Your task to perform on an android device: toggle notifications settings in the gmail app Image 0: 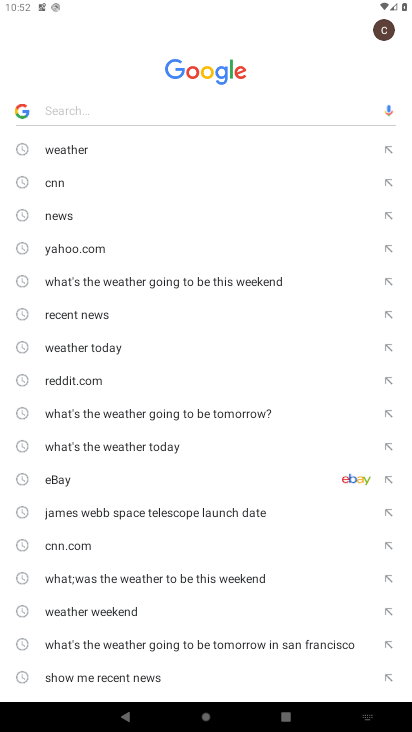
Step 0: press home button
Your task to perform on an android device: toggle notifications settings in the gmail app Image 1: 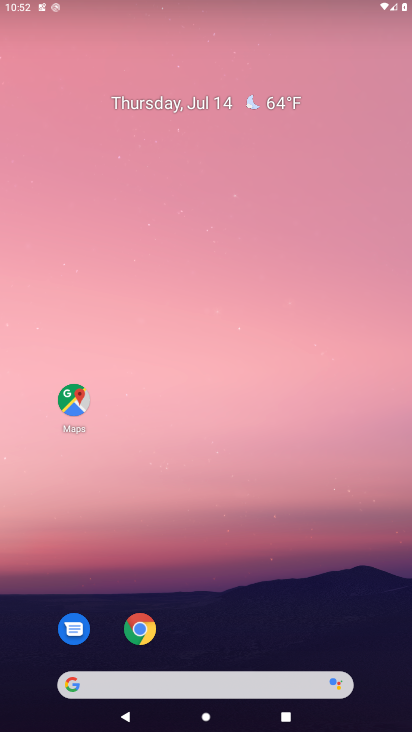
Step 1: drag from (161, 557) to (161, 325)
Your task to perform on an android device: toggle notifications settings in the gmail app Image 2: 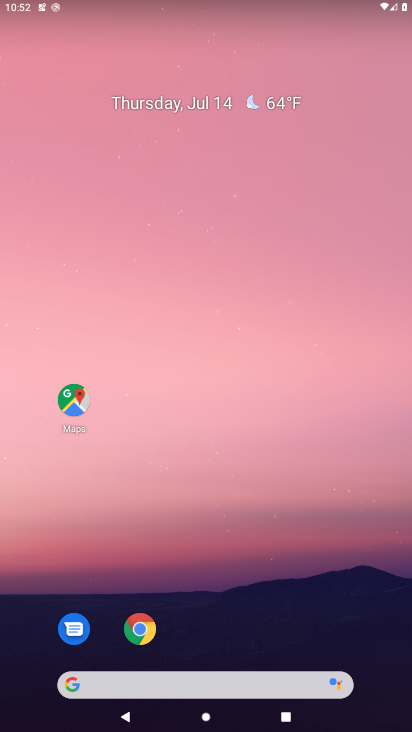
Step 2: drag from (176, 538) to (222, 263)
Your task to perform on an android device: toggle notifications settings in the gmail app Image 3: 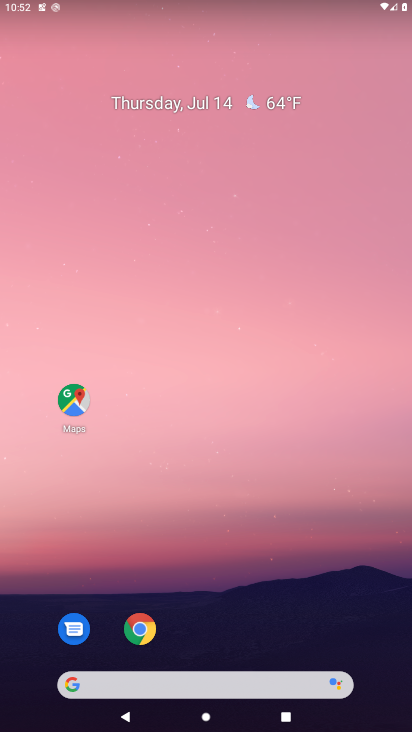
Step 3: drag from (188, 659) to (210, 42)
Your task to perform on an android device: toggle notifications settings in the gmail app Image 4: 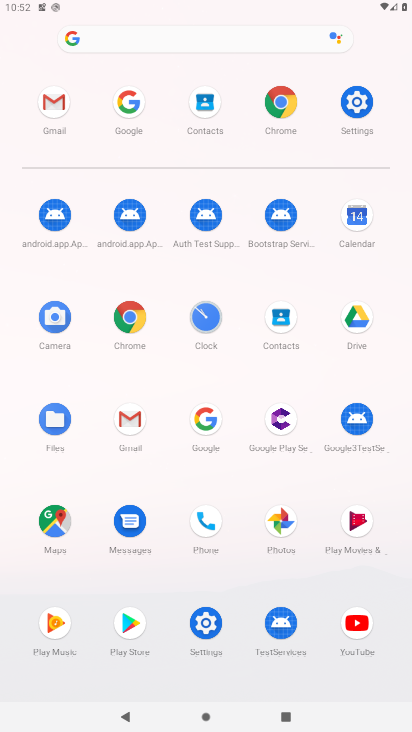
Step 4: click (130, 411)
Your task to perform on an android device: toggle notifications settings in the gmail app Image 5: 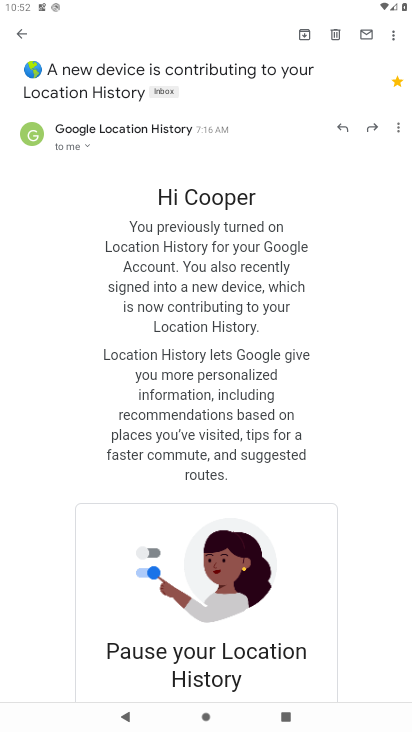
Step 5: click (21, 26)
Your task to perform on an android device: toggle notifications settings in the gmail app Image 6: 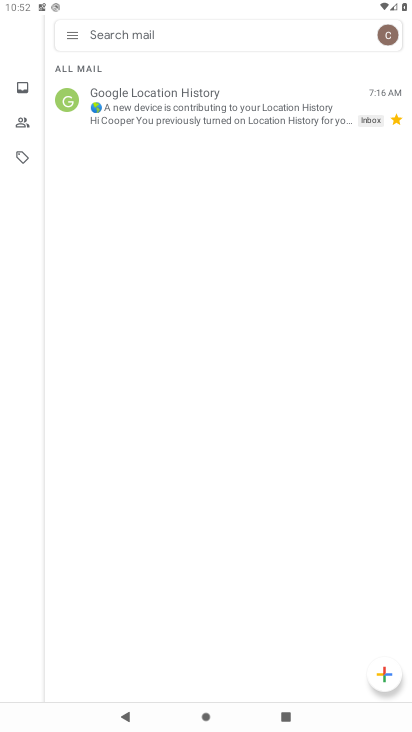
Step 6: click (78, 33)
Your task to perform on an android device: toggle notifications settings in the gmail app Image 7: 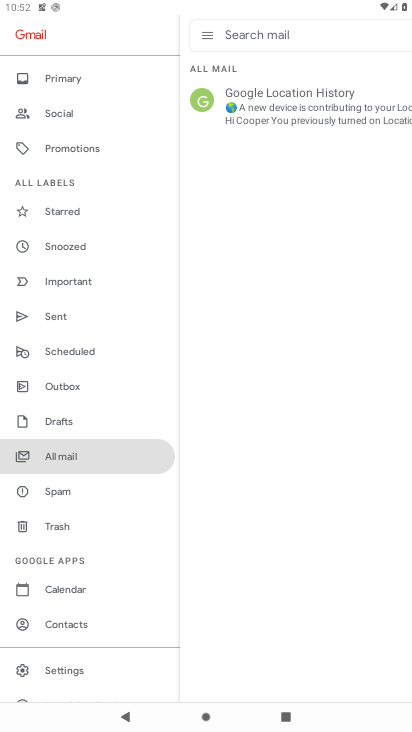
Step 7: click (61, 668)
Your task to perform on an android device: toggle notifications settings in the gmail app Image 8: 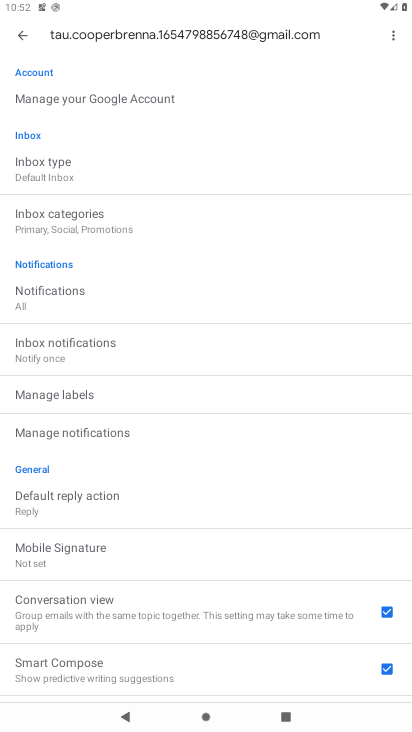
Step 8: click (54, 429)
Your task to perform on an android device: toggle notifications settings in the gmail app Image 9: 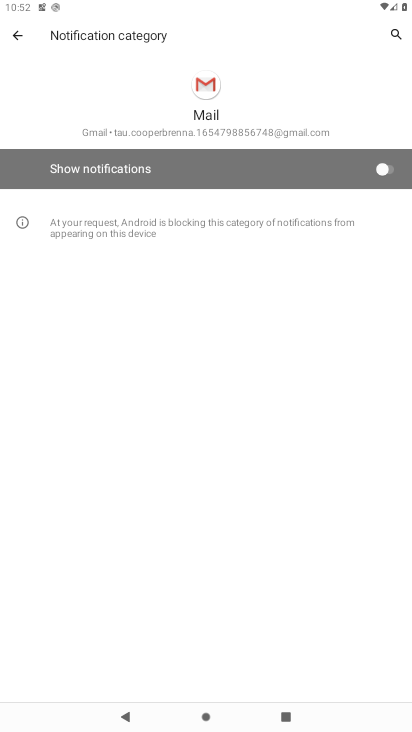
Step 9: click (372, 172)
Your task to perform on an android device: toggle notifications settings in the gmail app Image 10: 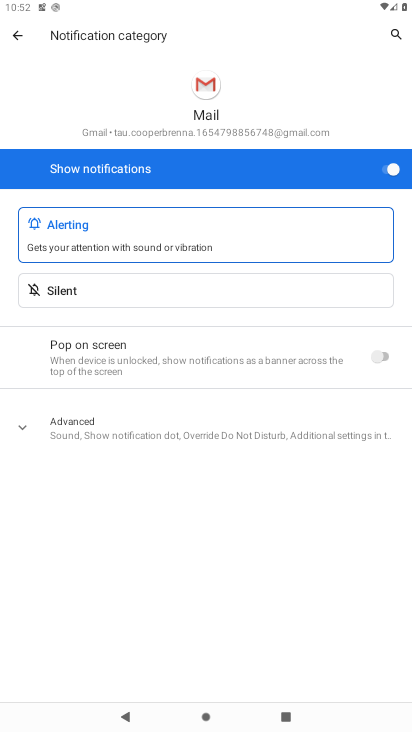
Step 10: task complete